Your task to perform on an android device: What is the news today? Image 0: 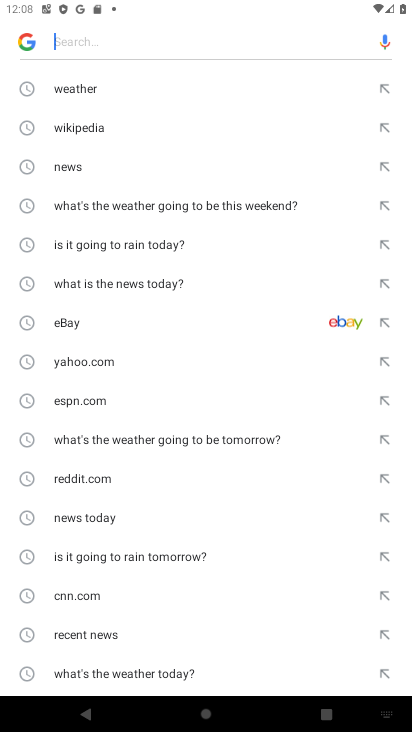
Step 0: click (97, 520)
Your task to perform on an android device: What is the news today? Image 1: 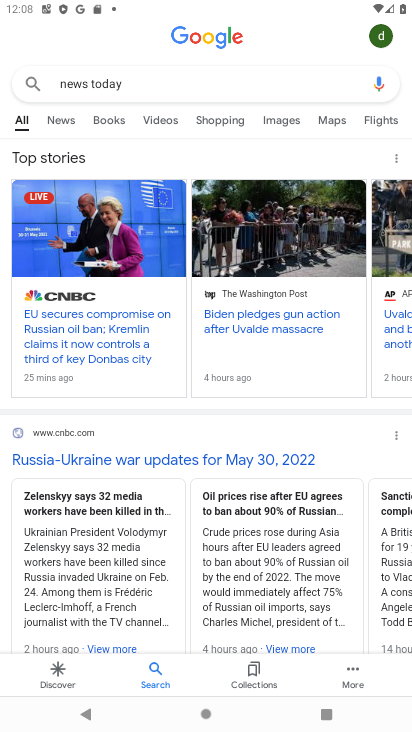
Step 1: task complete